Your task to perform on an android device: check the backup settings in the google photos Image 0: 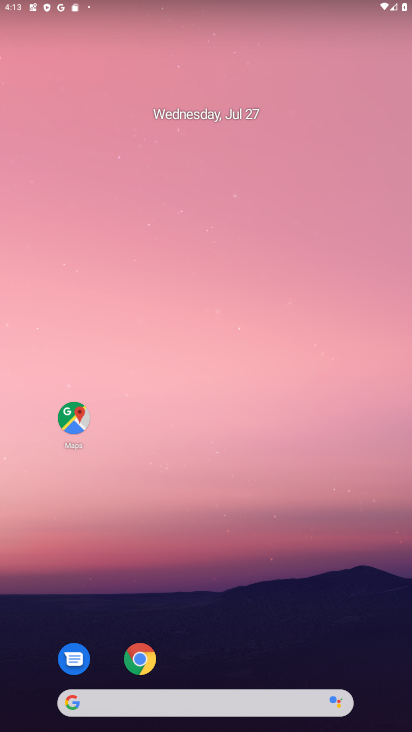
Step 0: drag from (340, 654) to (285, 64)
Your task to perform on an android device: check the backup settings in the google photos Image 1: 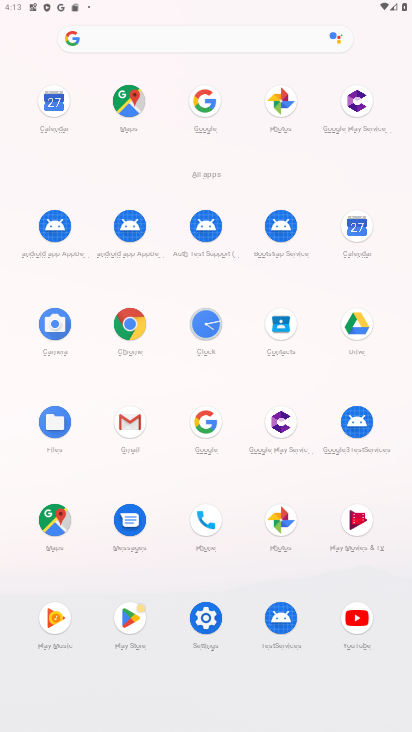
Step 1: click (279, 99)
Your task to perform on an android device: check the backup settings in the google photos Image 2: 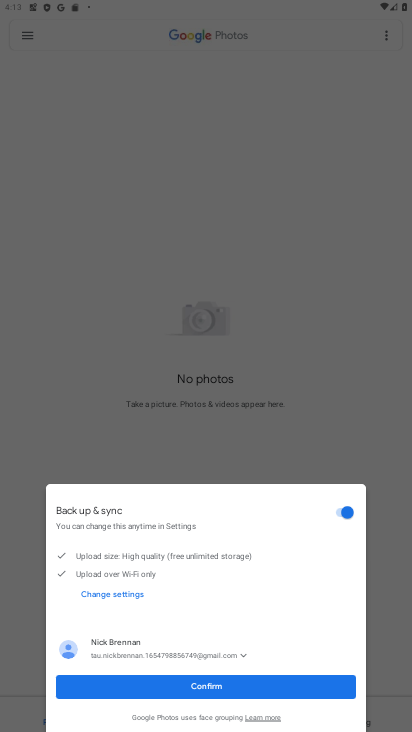
Step 2: click (201, 676)
Your task to perform on an android device: check the backup settings in the google photos Image 3: 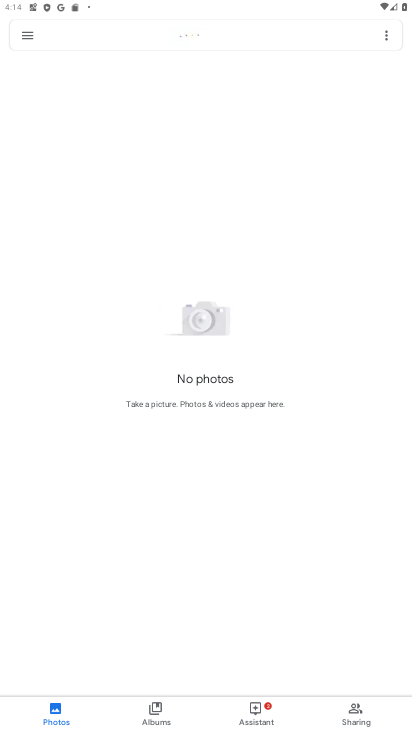
Step 3: click (24, 44)
Your task to perform on an android device: check the backup settings in the google photos Image 4: 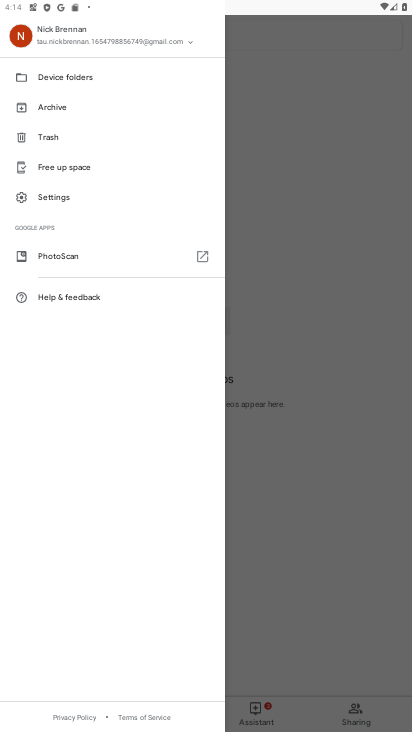
Step 4: click (73, 192)
Your task to perform on an android device: check the backup settings in the google photos Image 5: 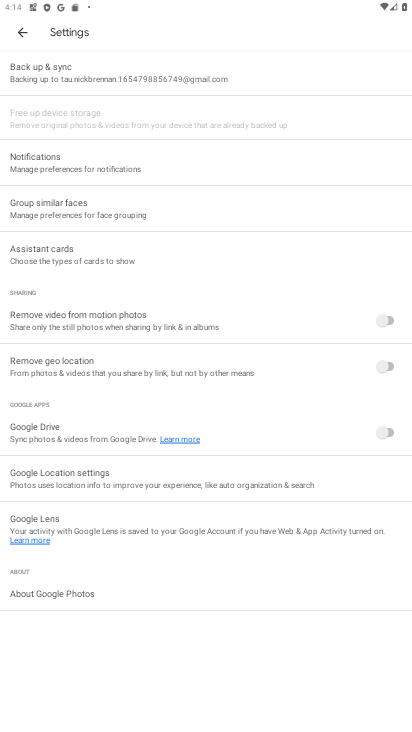
Step 5: click (92, 76)
Your task to perform on an android device: check the backup settings in the google photos Image 6: 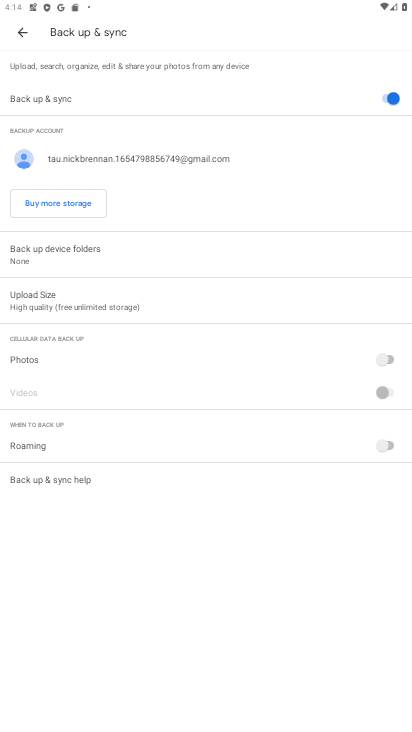
Step 6: task complete